Your task to perform on an android device: toggle location history Image 0: 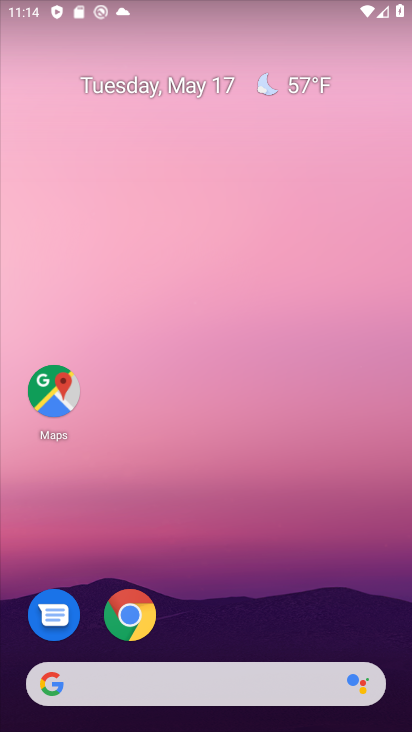
Step 0: drag from (384, 618) to (219, 69)
Your task to perform on an android device: toggle location history Image 1: 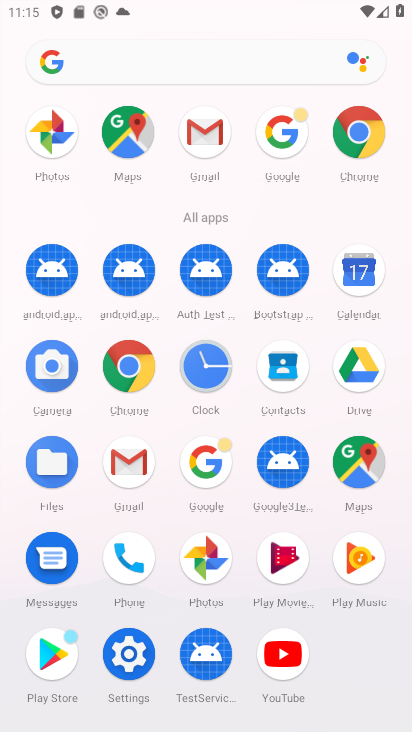
Step 1: click (144, 655)
Your task to perform on an android device: toggle location history Image 2: 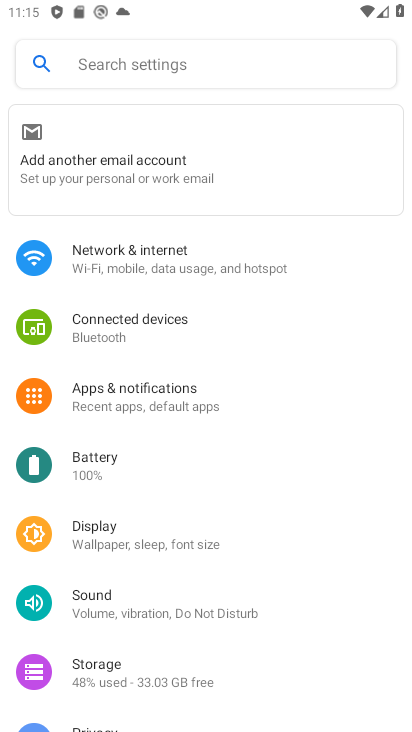
Step 2: drag from (138, 667) to (158, 324)
Your task to perform on an android device: toggle location history Image 3: 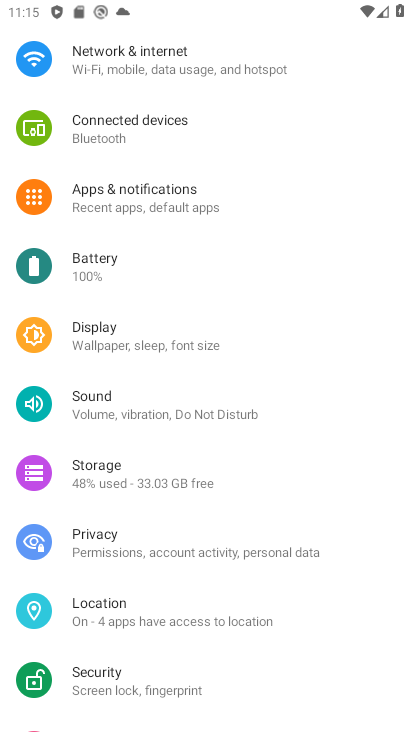
Step 3: click (139, 618)
Your task to perform on an android device: toggle location history Image 4: 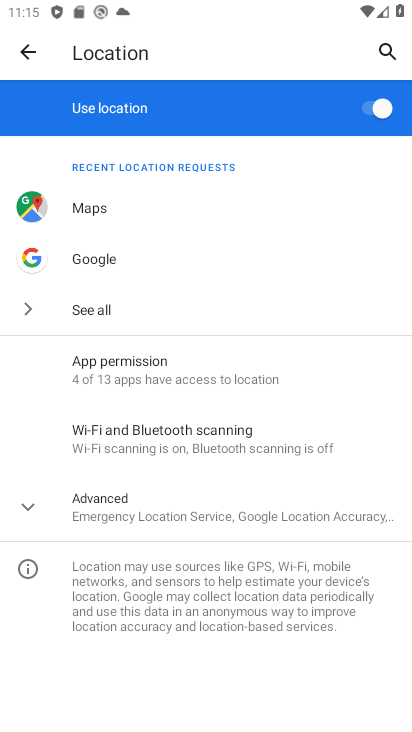
Step 4: click (138, 526)
Your task to perform on an android device: toggle location history Image 5: 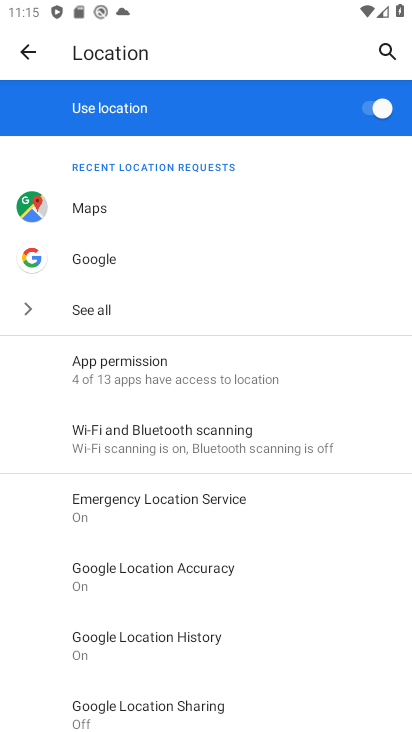
Step 5: click (237, 633)
Your task to perform on an android device: toggle location history Image 6: 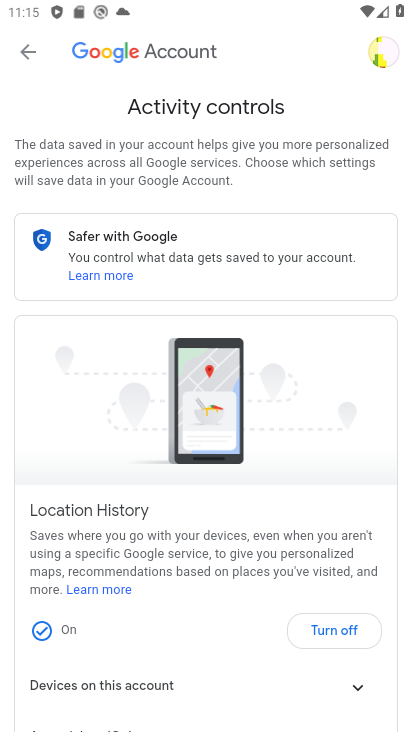
Step 6: drag from (243, 626) to (178, 161)
Your task to perform on an android device: toggle location history Image 7: 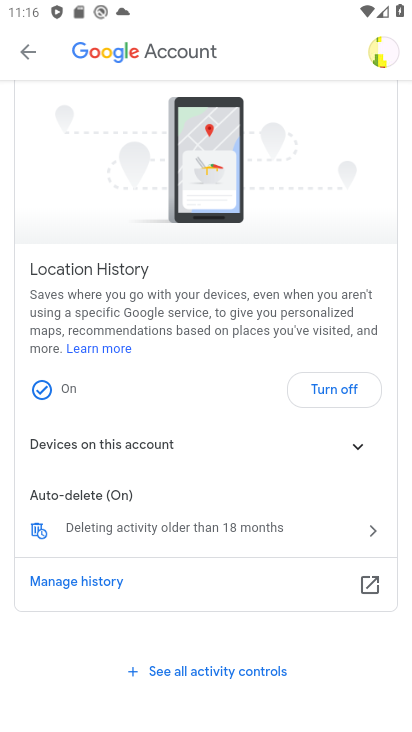
Step 7: click (335, 385)
Your task to perform on an android device: toggle location history Image 8: 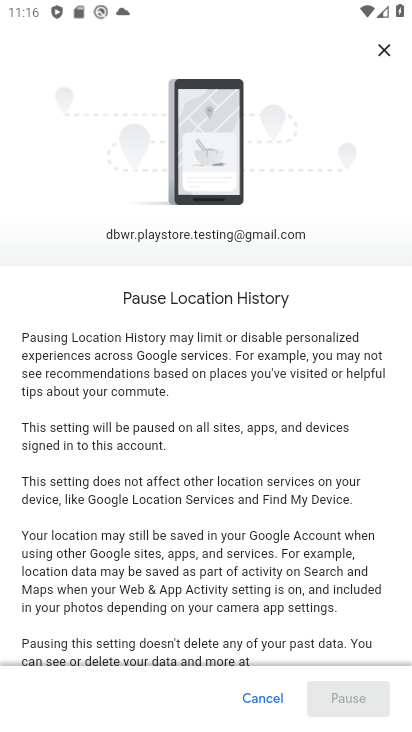
Step 8: task complete